Your task to perform on an android device: turn on airplane mode Image 0: 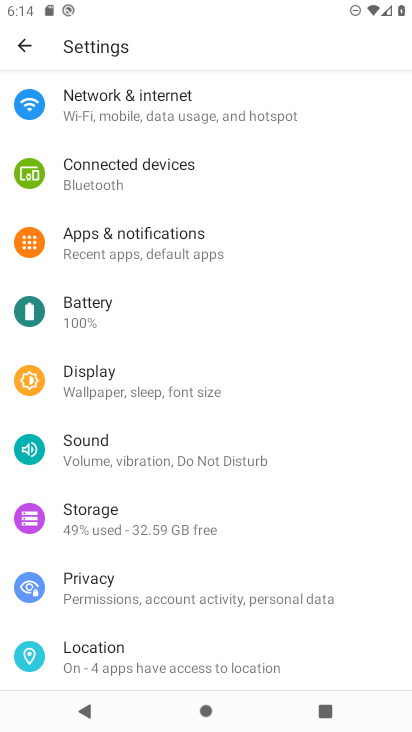
Step 0: drag from (194, 3) to (186, 350)
Your task to perform on an android device: turn on airplane mode Image 1: 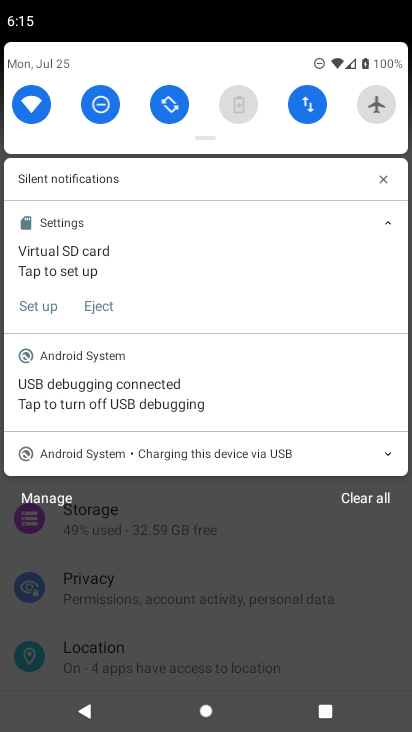
Step 1: click (93, 106)
Your task to perform on an android device: turn on airplane mode Image 2: 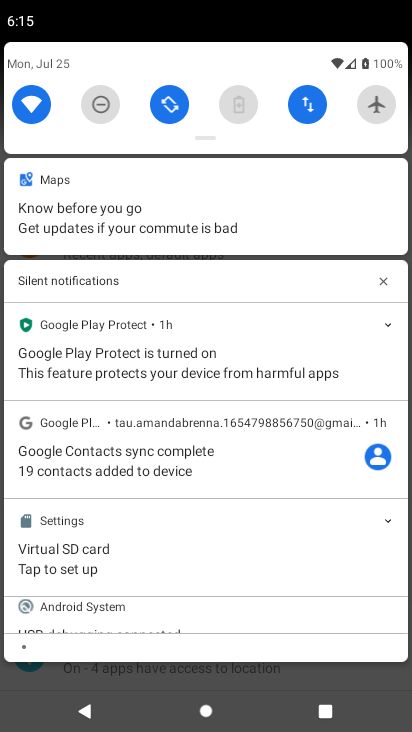
Step 2: click (375, 731)
Your task to perform on an android device: turn on airplane mode Image 3: 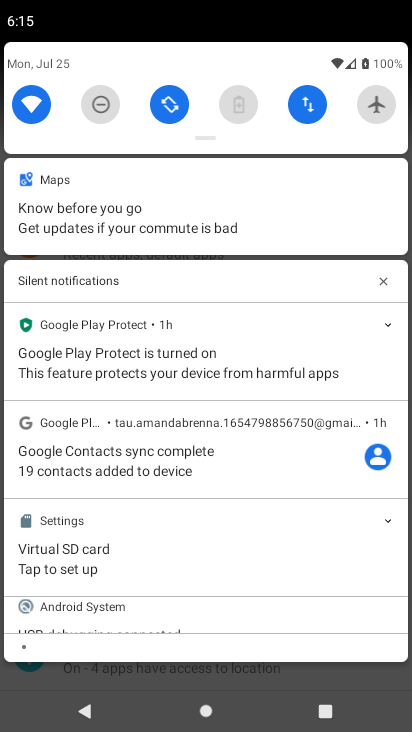
Step 3: click (376, 105)
Your task to perform on an android device: turn on airplane mode Image 4: 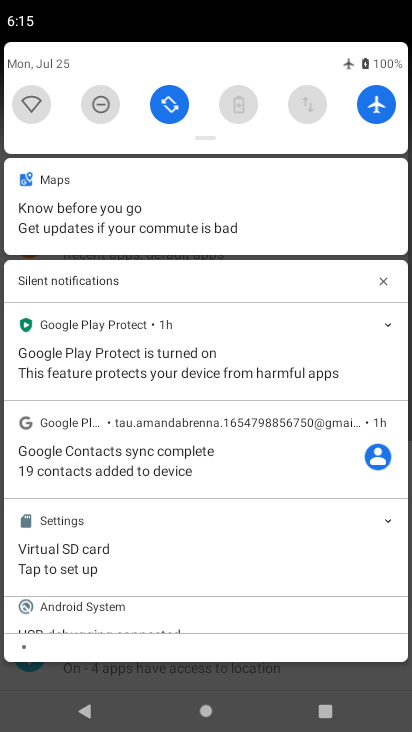
Step 4: task complete